Your task to perform on an android device: check the backup settings in the google photos Image 0: 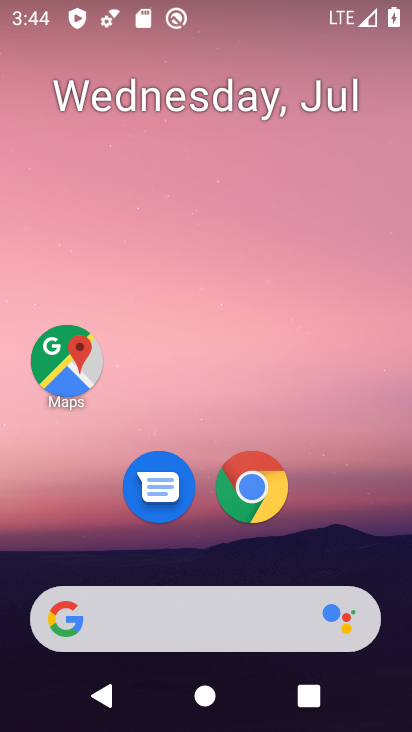
Step 0: drag from (246, 573) to (247, 131)
Your task to perform on an android device: check the backup settings in the google photos Image 1: 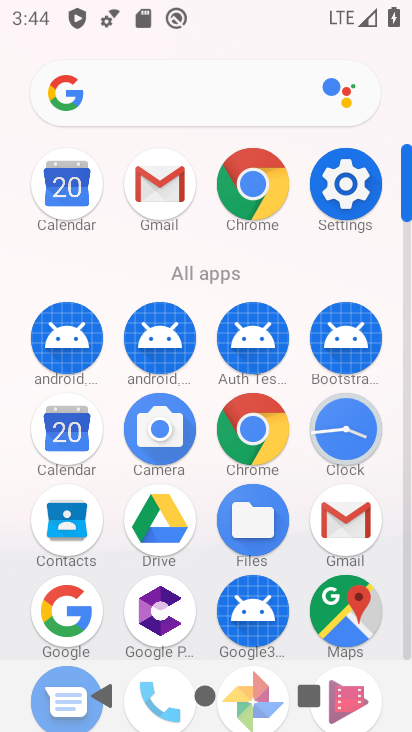
Step 1: drag from (253, 533) to (253, 239)
Your task to perform on an android device: check the backup settings in the google photos Image 2: 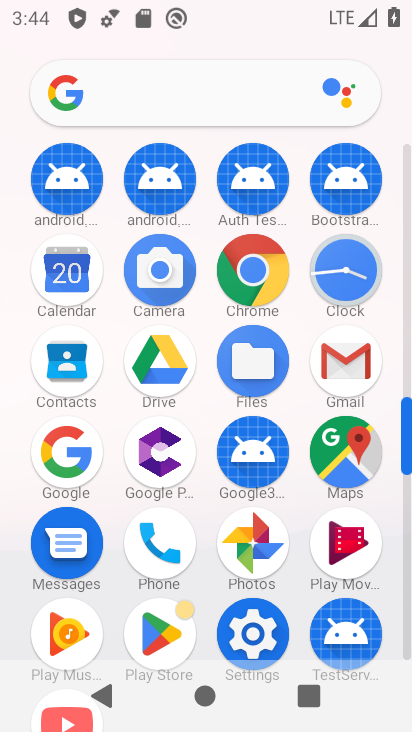
Step 2: click (268, 549)
Your task to perform on an android device: check the backup settings in the google photos Image 3: 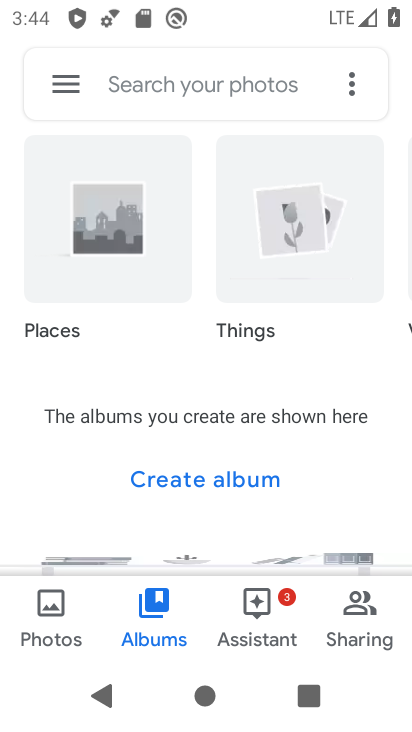
Step 3: click (57, 90)
Your task to perform on an android device: check the backup settings in the google photos Image 4: 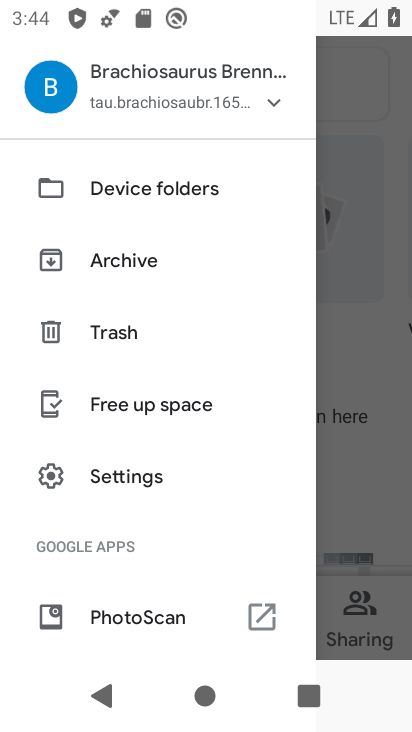
Step 4: click (102, 478)
Your task to perform on an android device: check the backup settings in the google photos Image 5: 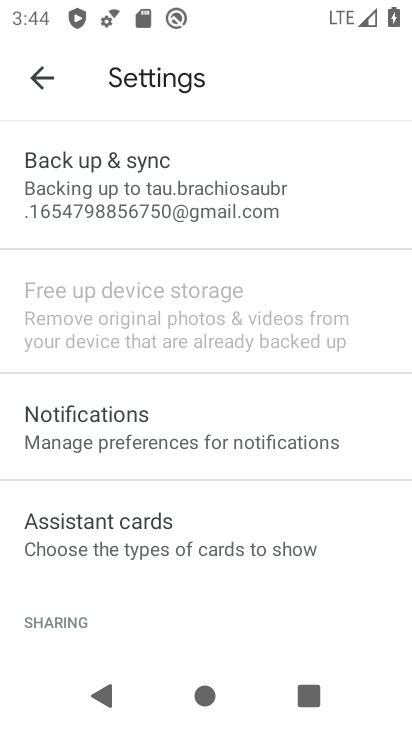
Step 5: click (34, 56)
Your task to perform on an android device: check the backup settings in the google photos Image 6: 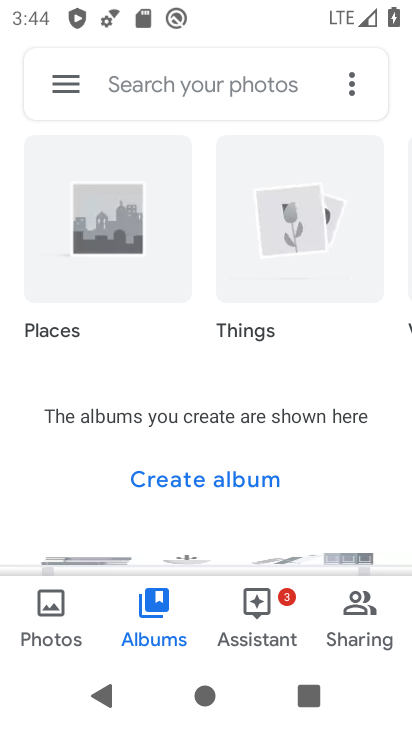
Step 6: click (61, 83)
Your task to perform on an android device: check the backup settings in the google photos Image 7: 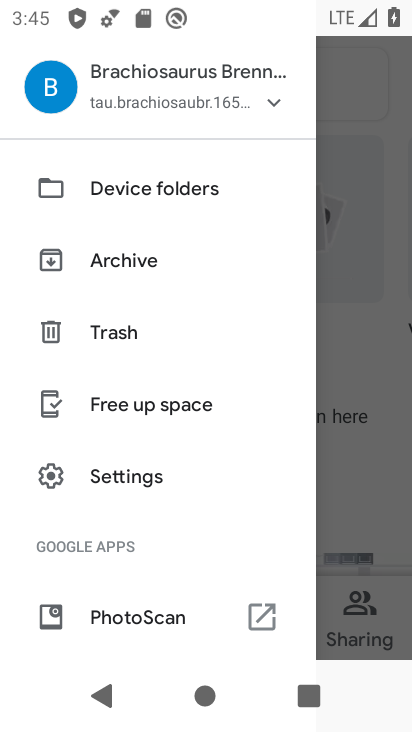
Step 7: click (135, 483)
Your task to perform on an android device: check the backup settings in the google photos Image 8: 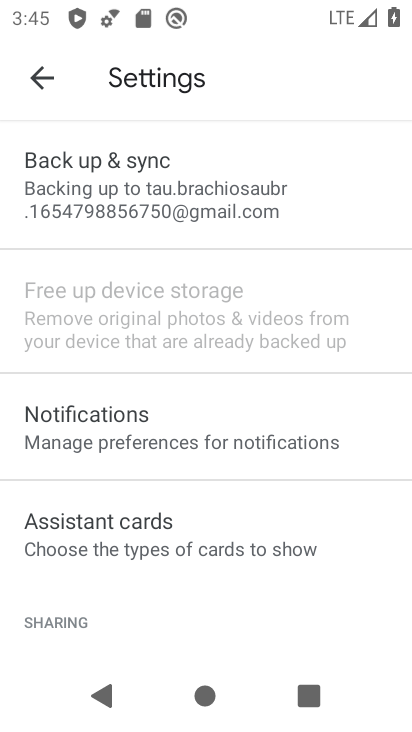
Step 8: click (146, 202)
Your task to perform on an android device: check the backup settings in the google photos Image 9: 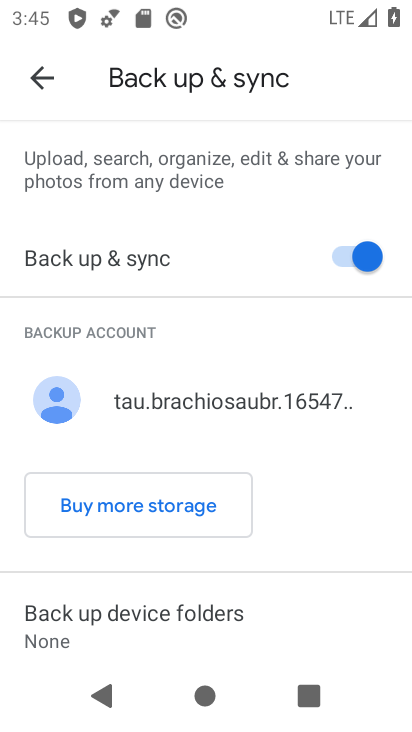
Step 9: task complete